Your task to perform on an android device: Open location settings Image 0: 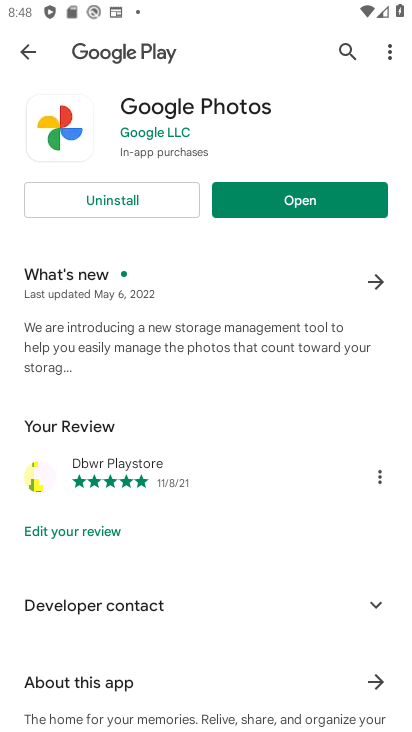
Step 0: press back button
Your task to perform on an android device: Open location settings Image 1: 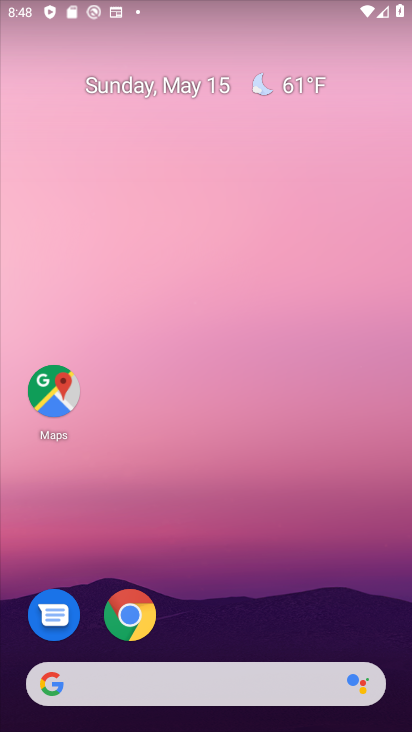
Step 1: drag from (198, 613) to (198, 35)
Your task to perform on an android device: Open location settings Image 2: 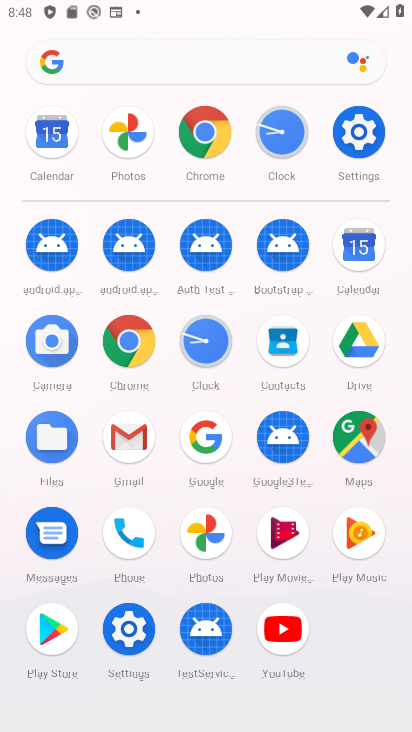
Step 2: click (128, 627)
Your task to perform on an android device: Open location settings Image 3: 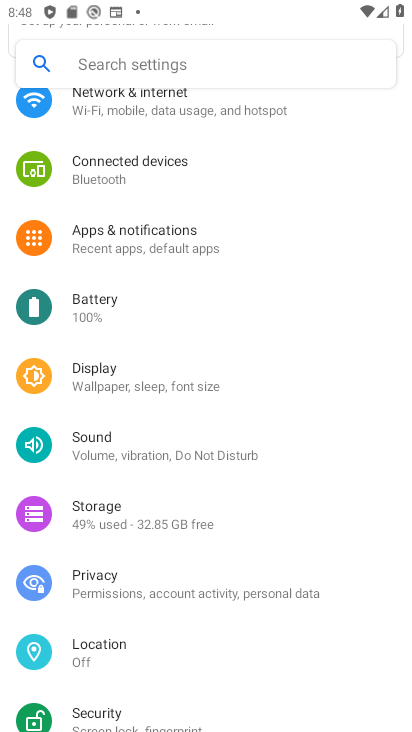
Step 3: click (99, 644)
Your task to perform on an android device: Open location settings Image 4: 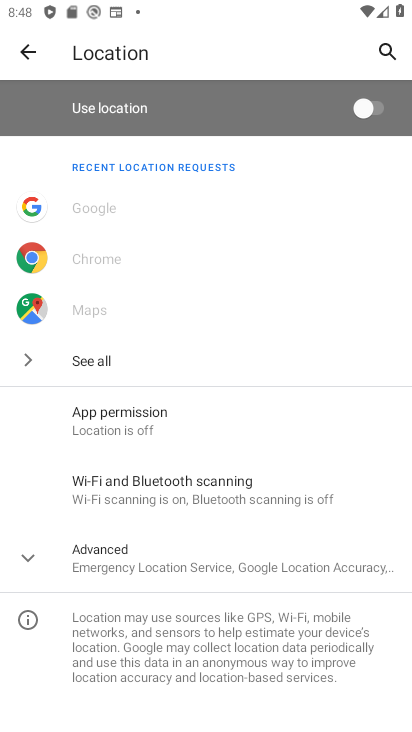
Step 4: click (36, 560)
Your task to perform on an android device: Open location settings Image 5: 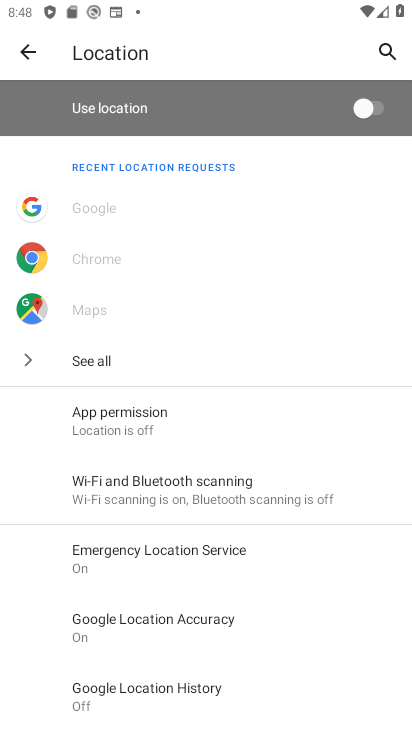
Step 5: task complete